Your task to perform on an android device: Search for sushi restaurants on Maps Image 0: 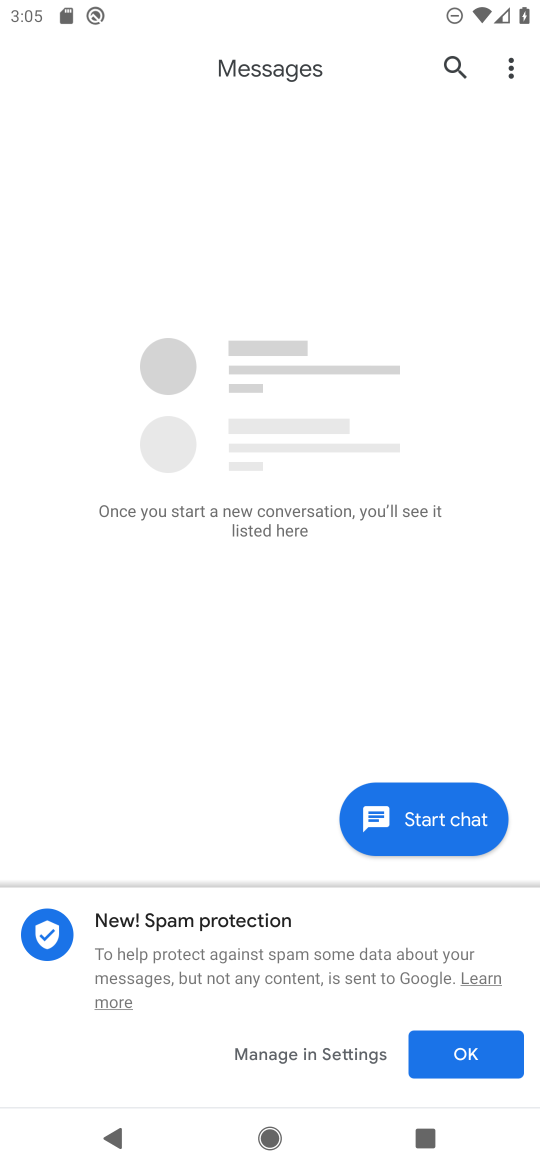
Step 0: press home button
Your task to perform on an android device: Search for sushi restaurants on Maps Image 1: 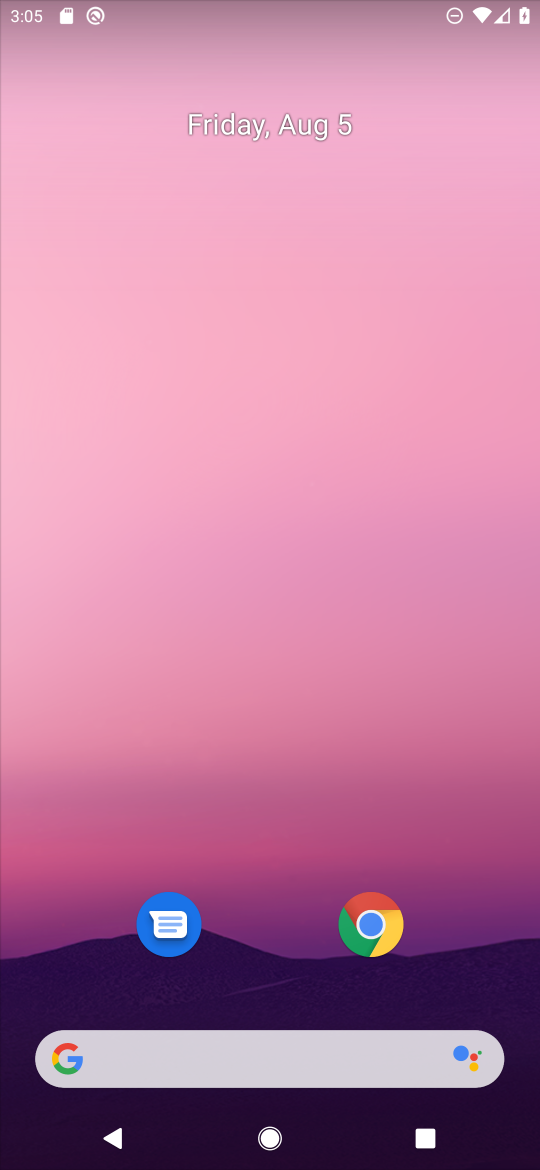
Step 1: drag from (221, 1016) to (458, 125)
Your task to perform on an android device: Search for sushi restaurants on Maps Image 2: 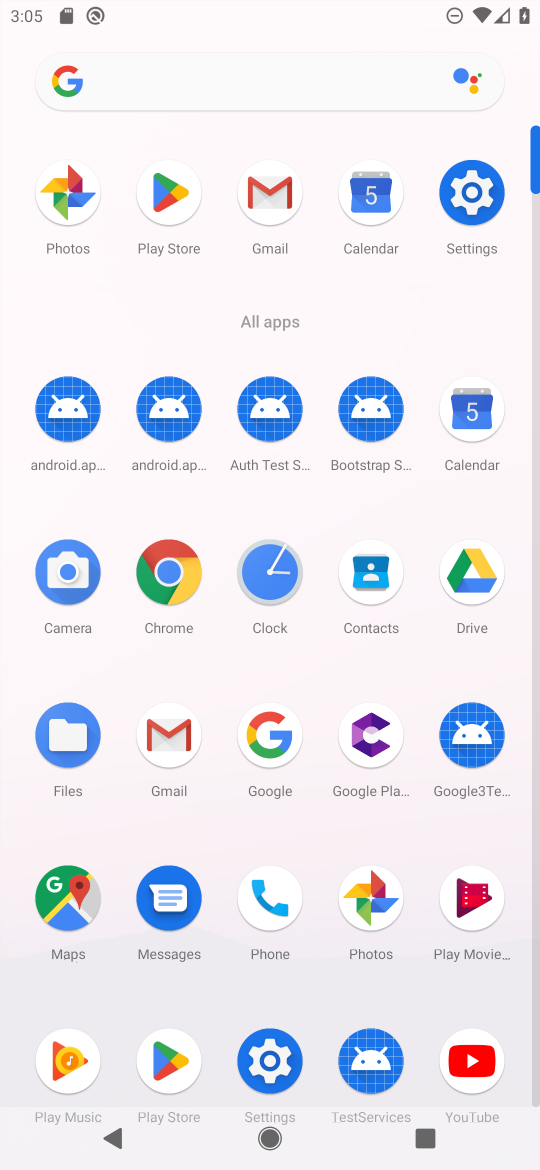
Step 2: click (64, 895)
Your task to perform on an android device: Search for sushi restaurants on Maps Image 3: 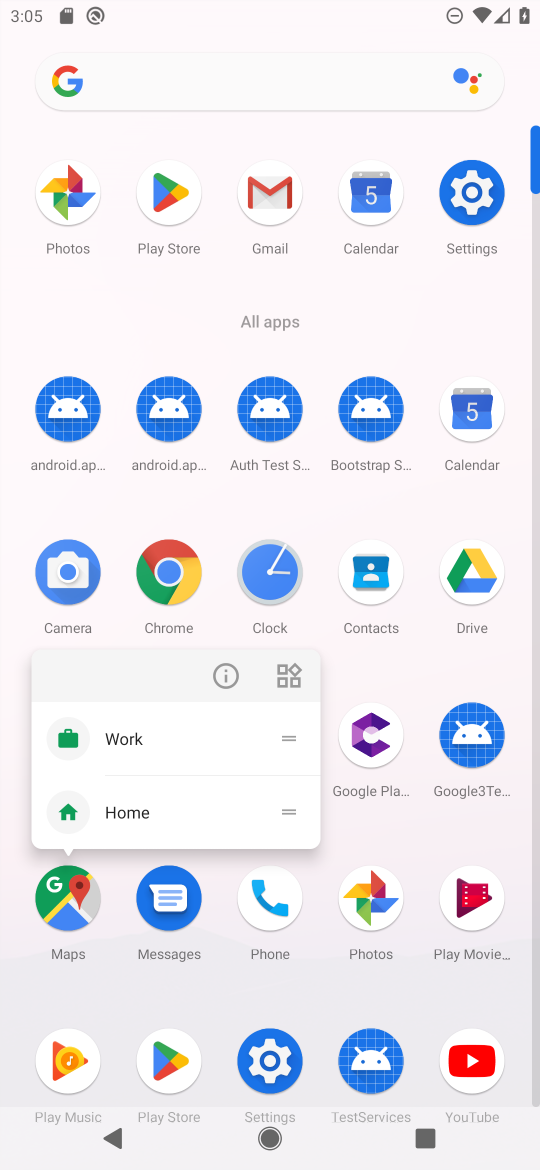
Step 3: click (64, 894)
Your task to perform on an android device: Search for sushi restaurants on Maps Image 4: 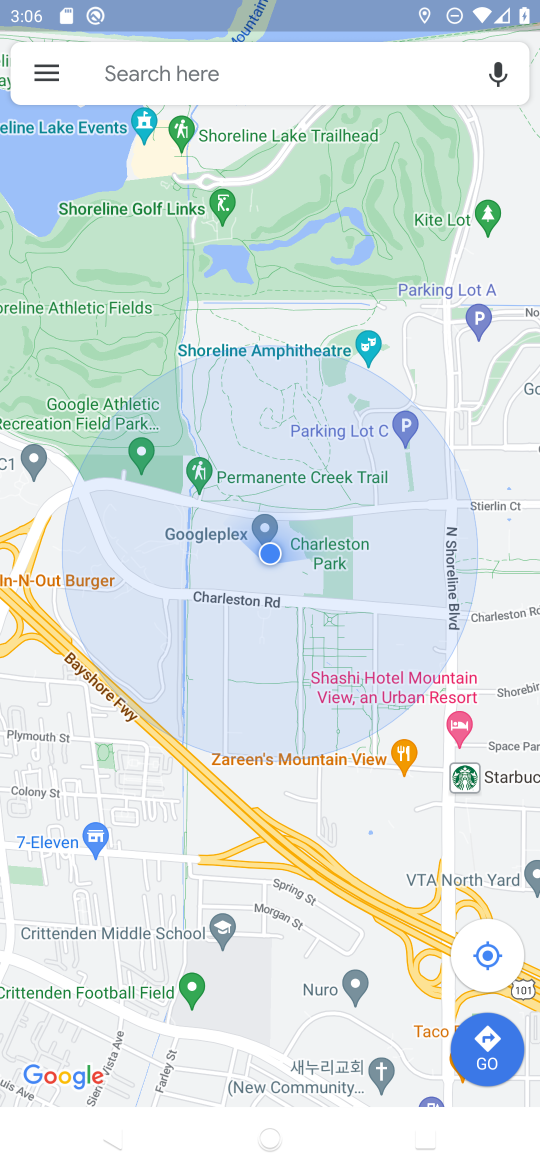
Step 4: click (136, 77)
Your task to perform on an android device: Search for sushi restaurants on Maps Image 5: 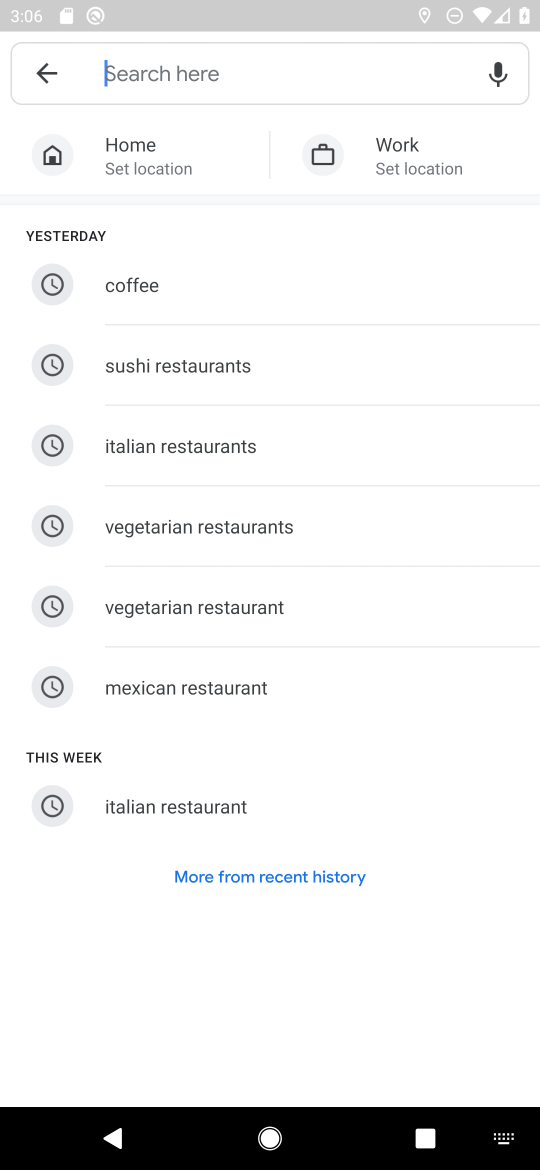
Step 5: click (228, 374)
Your task to perform on an android device: Search for sushi restaurants on Maps Image 6: 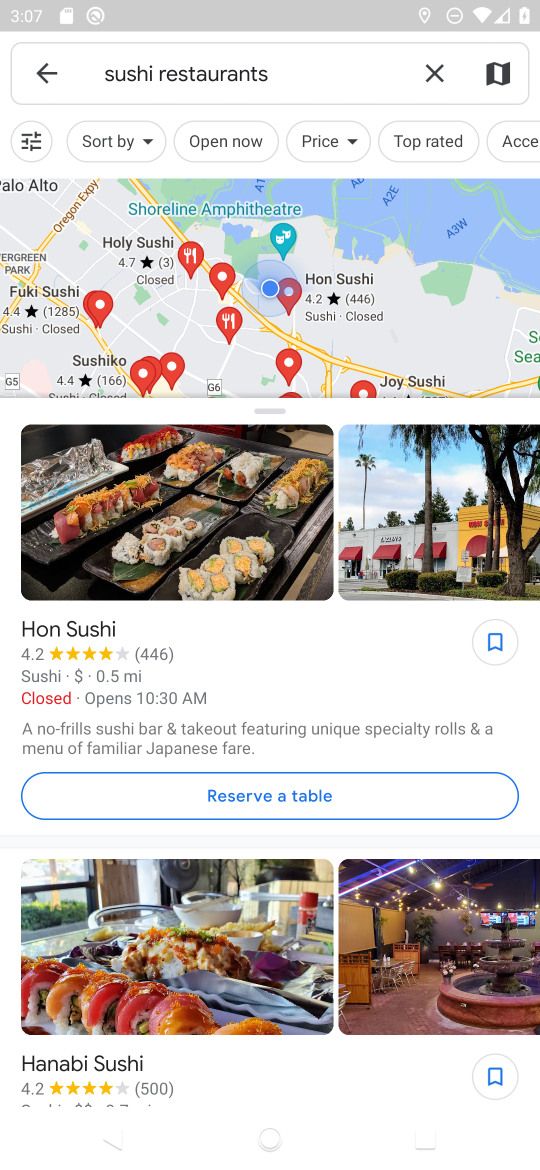
Step 6: task complete